Your task to perform on an android device: turn off javascript in the chrome app Image 0: 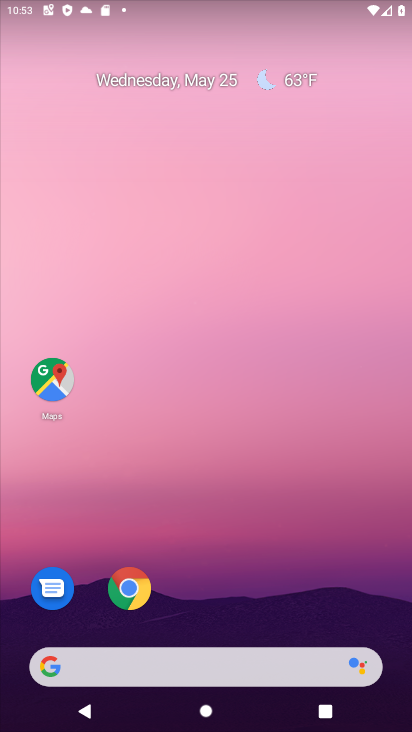
Step 0: click (126, 582)
Your task to perform on an android device: turn off javascript in the chrome app Image 1: 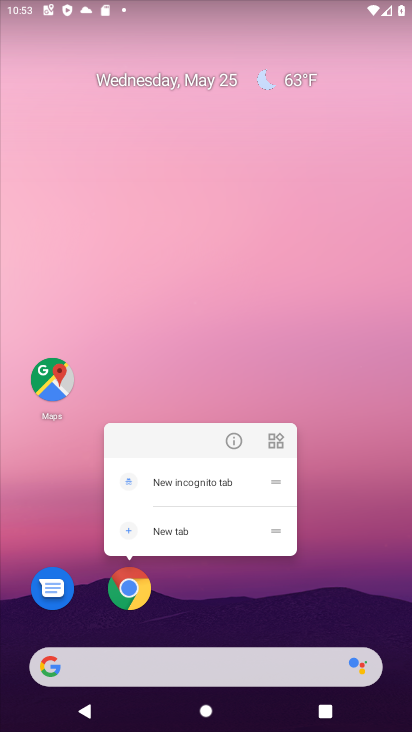
Step 1: click (127, 582)
Your task to perform on an android device: turn off javascript in the chrome app Image 2: 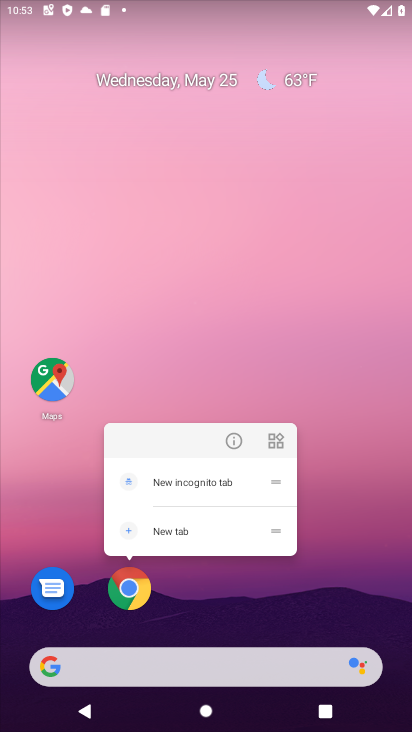
Step 2: click (122, 596)
Your task to perform on an android device: turn off javascript in the chrome app Image 3: 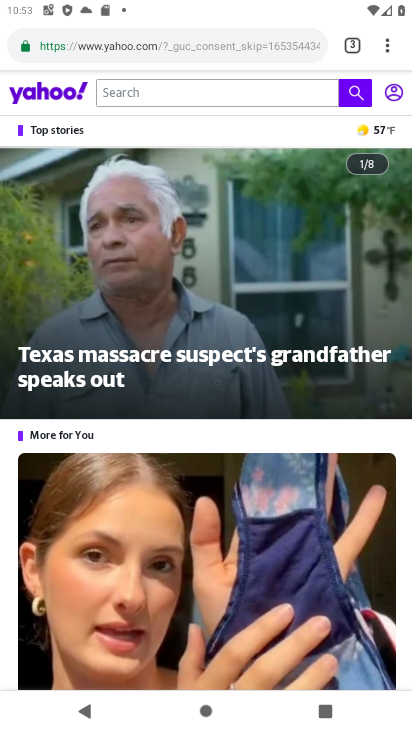
Step 3: click (384, 55)
Your task to perform on an android device: turn off javascript in the chrome app Image 4: 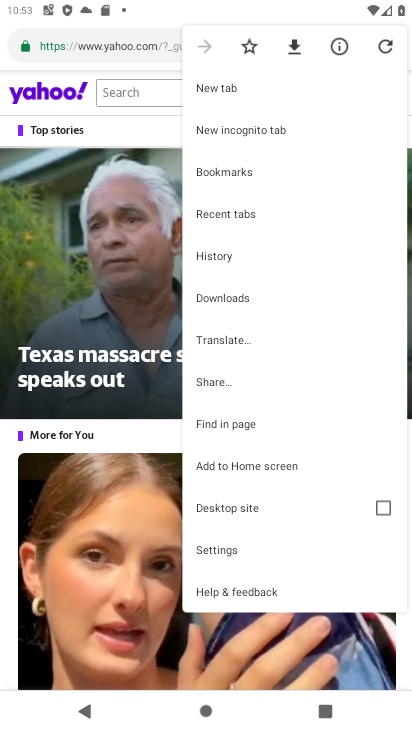
Step 4: click (232, 547)
Your task to perform on an android device: turn off javascript in the chrome app Image 5: 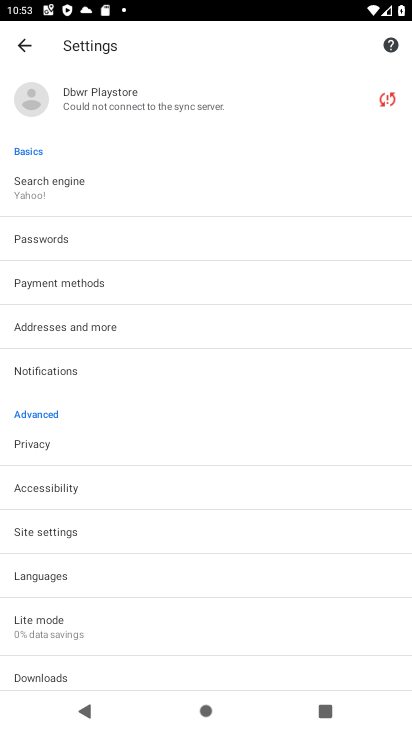
Step 5: click (178, 513)
Your task to perform on an android device: turn off javascript in the chrome app Image 6: 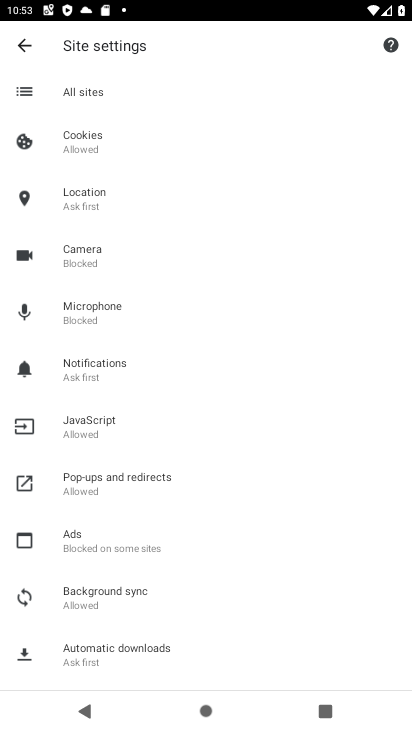
Step 6: click (163, 423)
Your task to perform on an android device: turn off javascript in the chrome app Image 7: 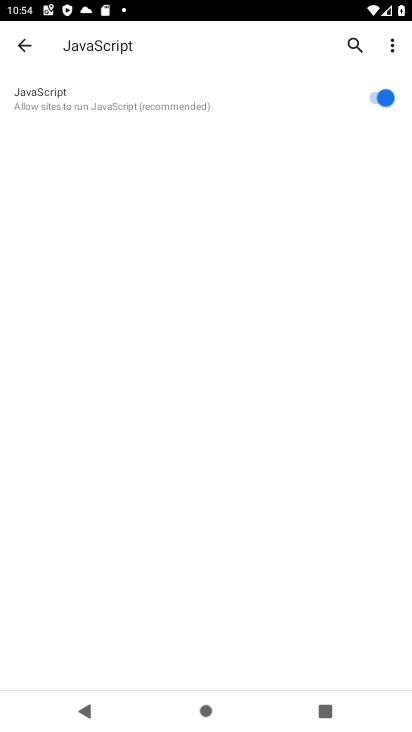
Step 7: click (376, 98)
Your task to perform on an android device: turn off javascript in the chrome app Image 8: 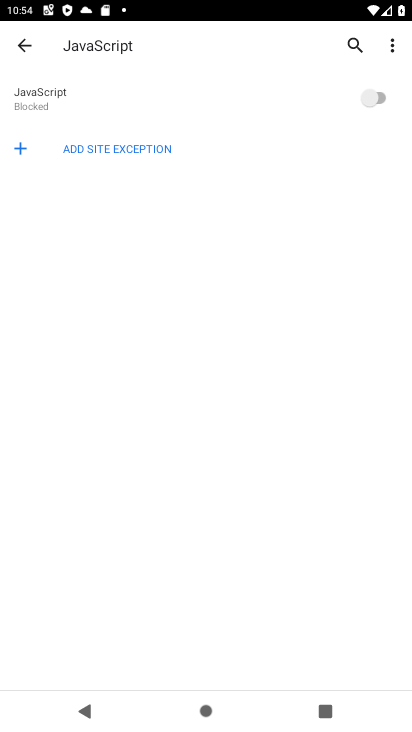
Step 8: task complete